Your task to perform on an android device: Open calendar and show me the third week of next month Image 0: 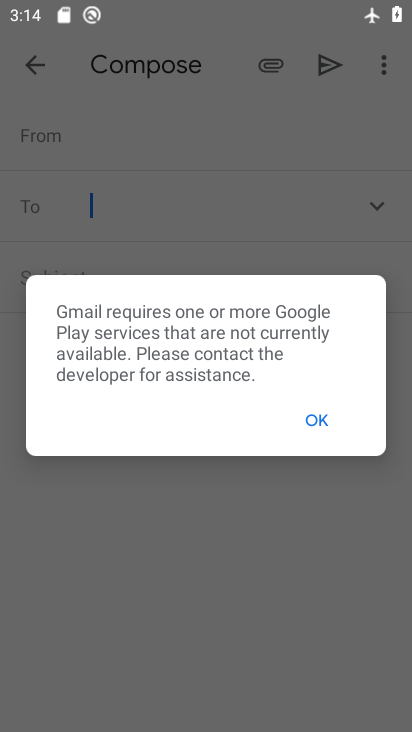
Step 0: click (232, 231)
Your task to perform on an android device: Open calendar and show me the third week of next month Image 1: 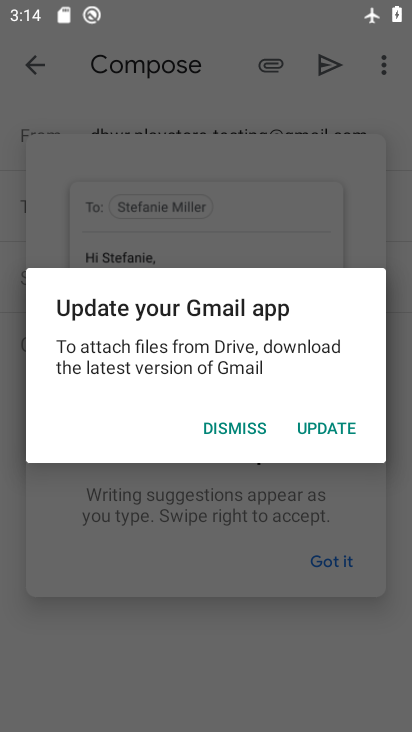
Step 1: click (241, 423)
Your task to perform on an android device: Open calendar and show me the third week of next month Image 2: 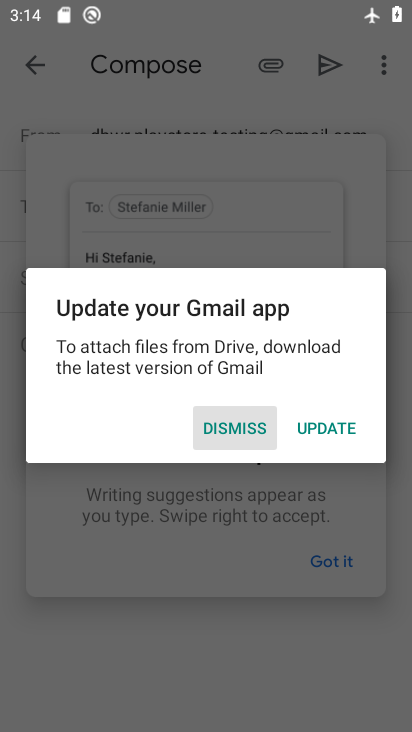
Step 2: click (241, 423)
Your task to perform on an android device: Open calendar and show me the third week of next month Image 3: 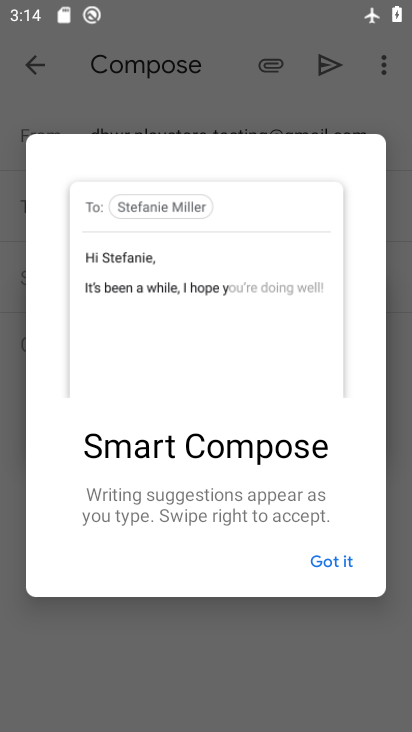
Step 3: click (340, 553)
Your task to perform on an android device: Open calendar and show me the third week of next month Image 4: 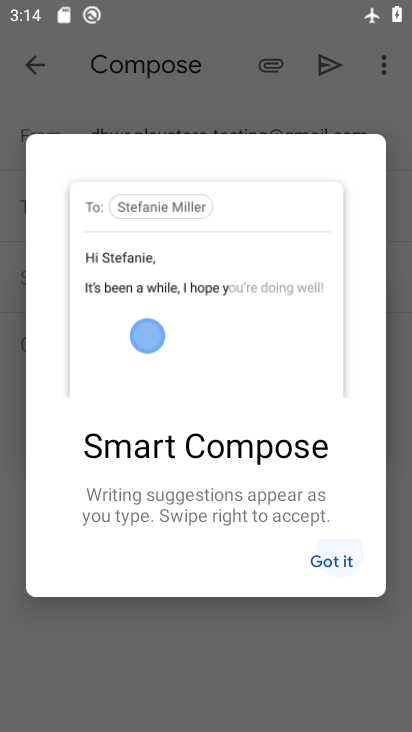
Step 4: click (340, 561)
Your task to perform on an android device: Open calendar and show me the third week of next month Image 5: 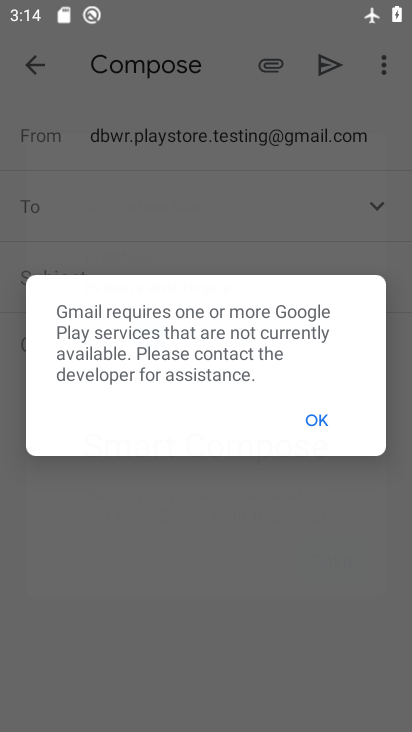
Step 5: click (340, 561)
Your task to perform on an android device: Open calendar and show me the third week of next month Image 6: 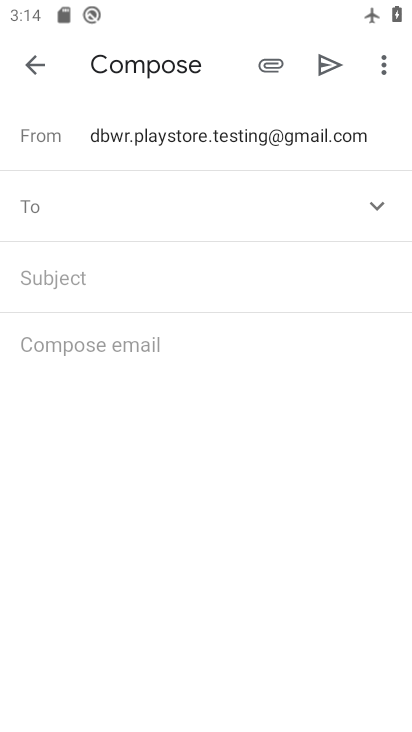
Step 6: click (334, 557)
Your task to perform on an android device: Open calendar and show me the third week of next month Image 7: 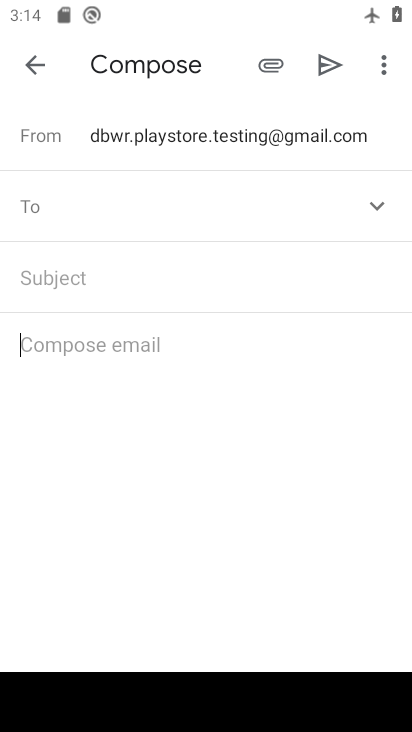
Step 7: click (30, 67)
Your task to perform on an android device: Open calendar and show me the third week of next month Image 8: 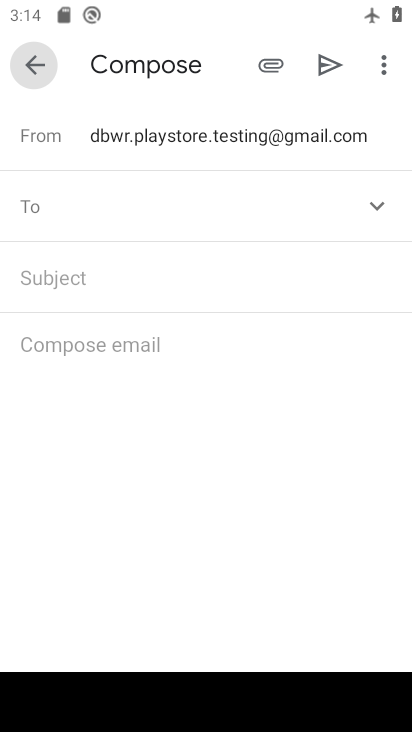
Step 8: click (33, 61)
Your task to perform on an android device: Open calendar and show me the third week of next month Image 9: 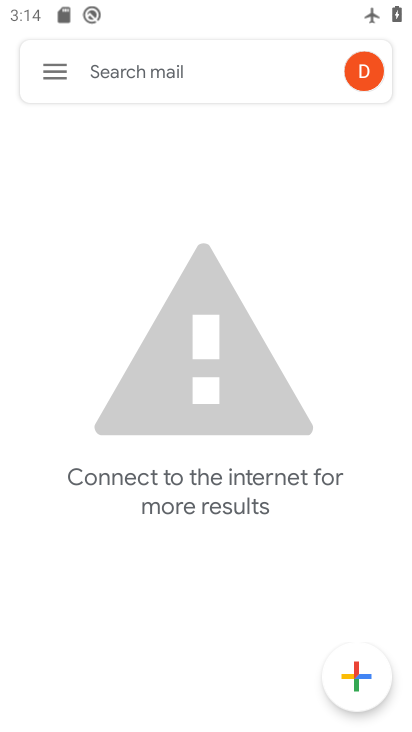
Step 9: press back button
Your task to perform on an android device: Open calendar and show me the third week of next month Image 10: 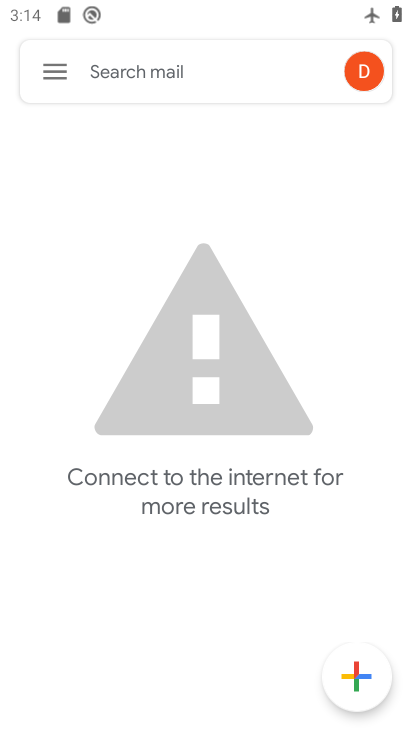
Step 10: press back button
Your task to perform on an android device: Open calendar and show me the third week of next month Image 11: 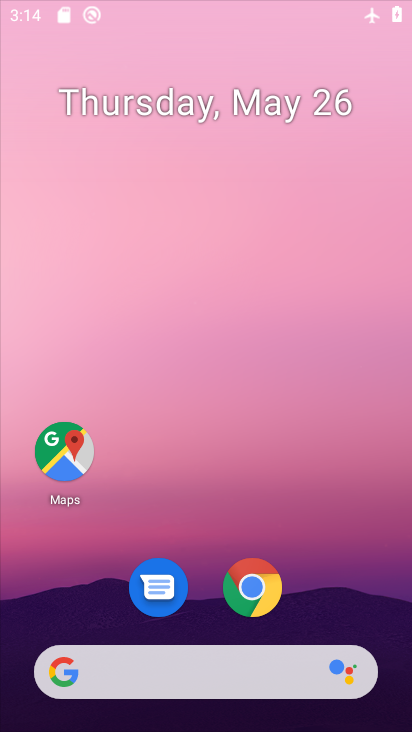
Step 11: press back button
Your task to perform on an android device: Open calendar and show me the third week of next month Image 12: 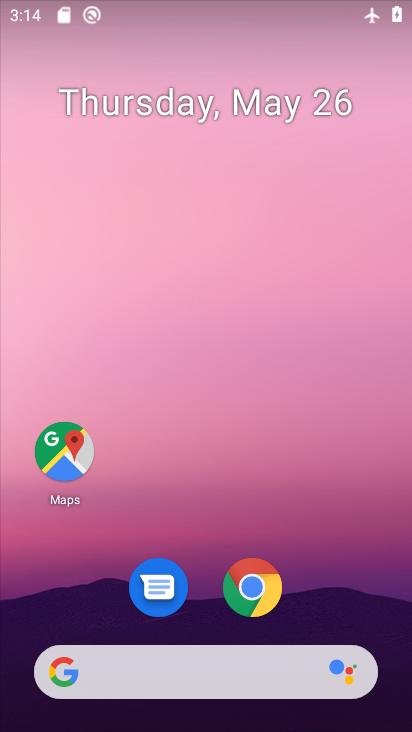
Step 12: drag from (334, 643) to (136, 27)
Your task to perform on an android device: Open calendar and show me the third week of next month Image 13: 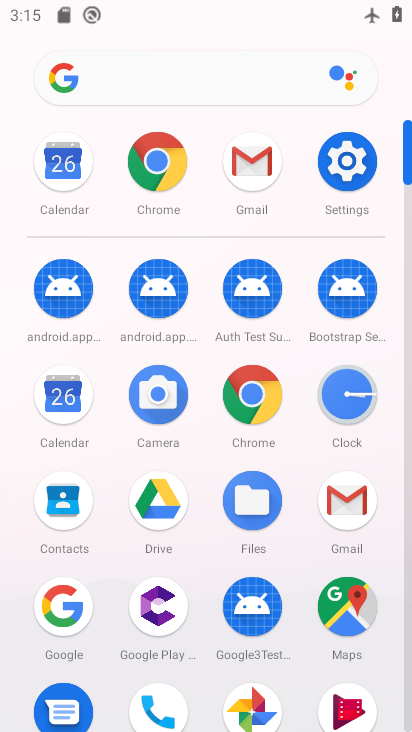
Step 13: click (66, 401)
Your task to perform on an android device: Open calendar and show me the third week of next month Image 14: 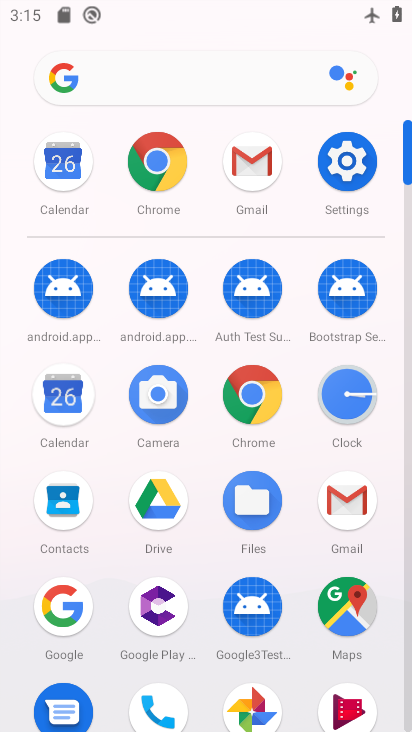
Step 14: click (66, 402)
Your task to perform on an android device: Open calendar and show me the third week of next month Image 15: 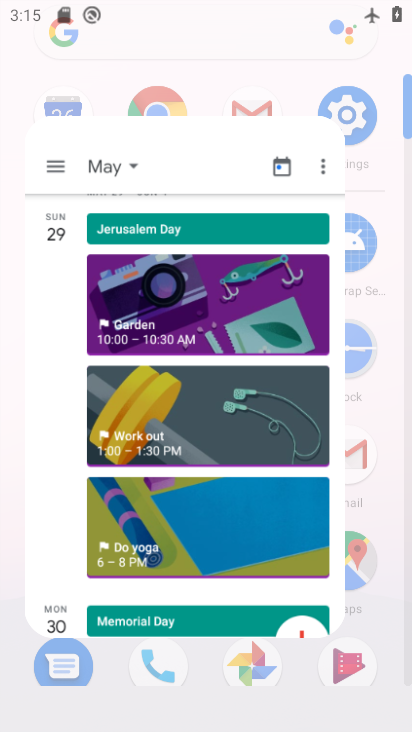
Step 15: click (66, 402)
Your task to perform on an android device: Open calendar and show me the third week of next month Image 16: 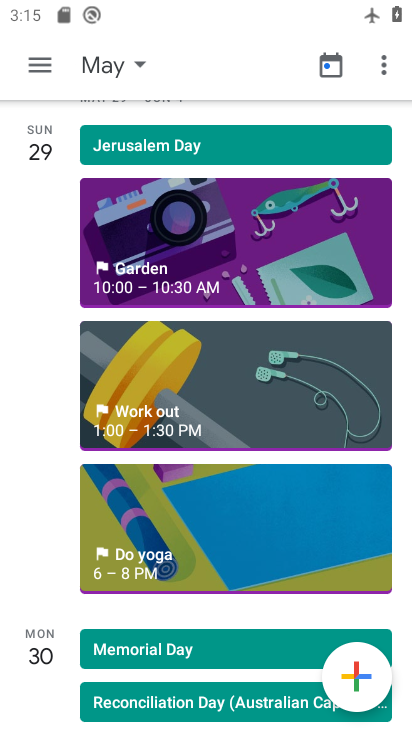
Step 16: click (66, 402)
Your task to perform on an android device: Open calendar and show me the third week of next month Image 17: 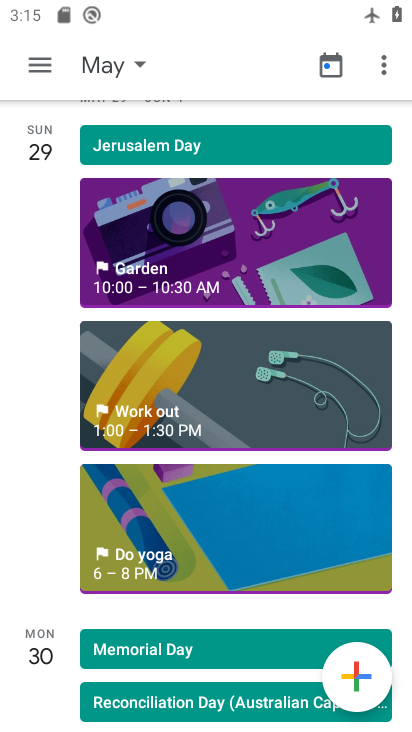
Step 17: click (136, 65)
Your task to perform on an android device: Open calendar and show me the third week of next month Image 18: 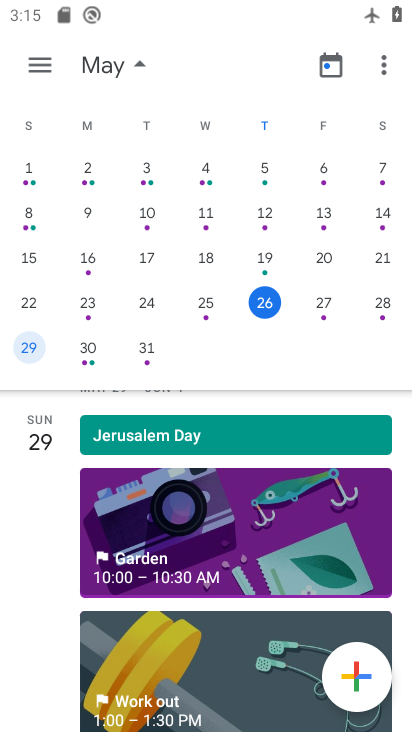
Step 18: drag from (343, 273) to (8, 315)
Your task to perform on an android device: Open calendar and show me the third week of next month Image 19: 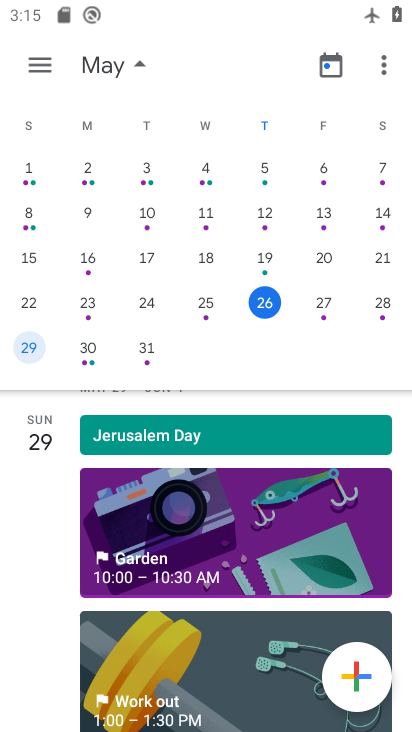
Step 19: drag from (317, 227) to (34, 199)
Your task to perform on an android device: Open calendar and show me the third week of next month Image 20: 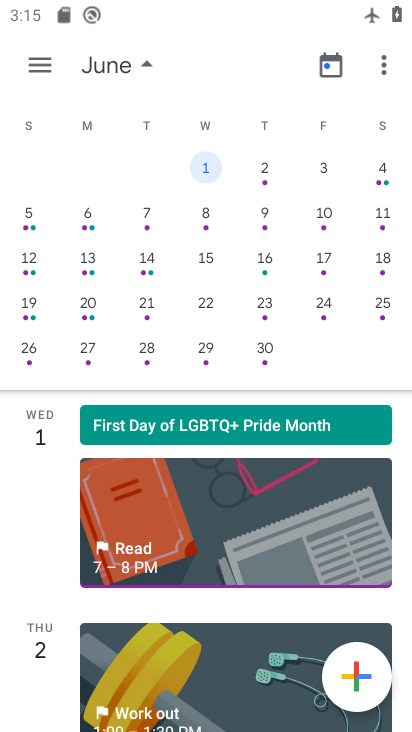
Step 20: click (206, 263)
Your task to perform on an android device: Open calendar and show me the third week of next month Image 21: 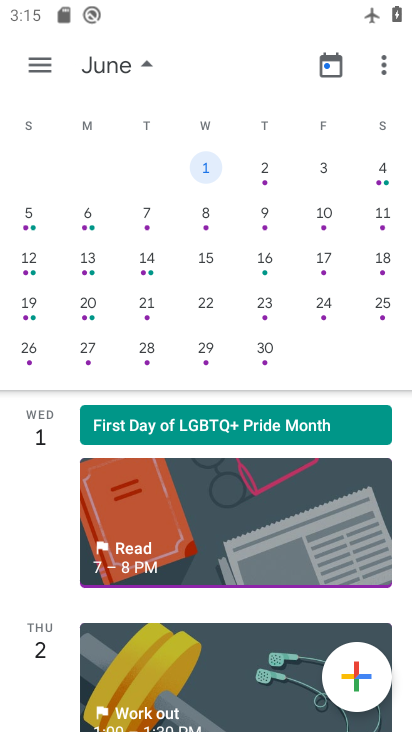
Step 21: click (206, 263)
Your task to perform on an android device: Open calendar and show me the third week of next month Image 22: 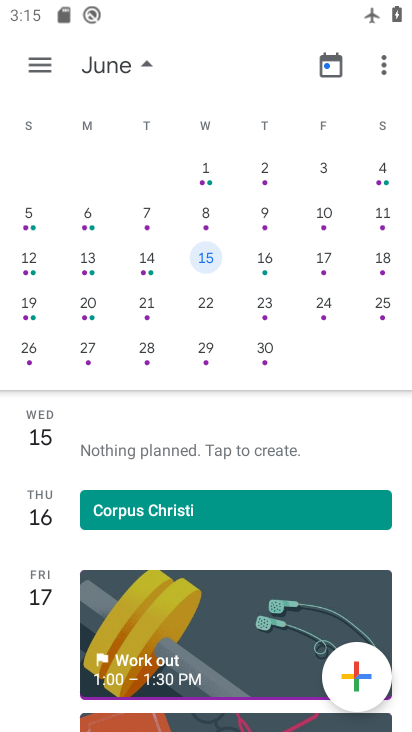
Step 22: click (215, 257)
Your task to perform on an android device: Open calendar and show me the third week of next month Image 23: 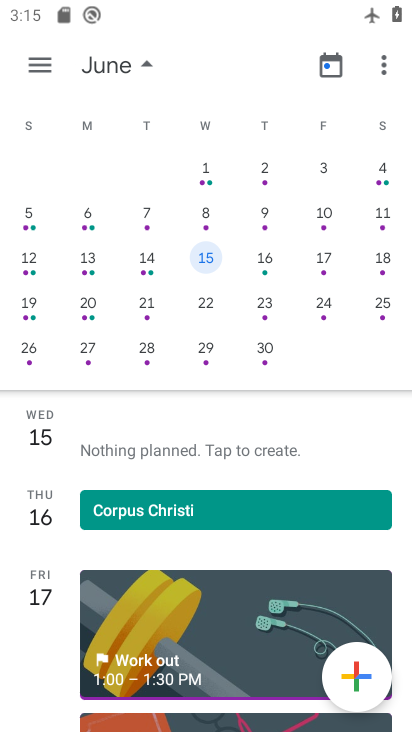
Step 23: click (216, 256)
Your task to perform on an android device: Open calendar and show me the third week of next month Image 24: 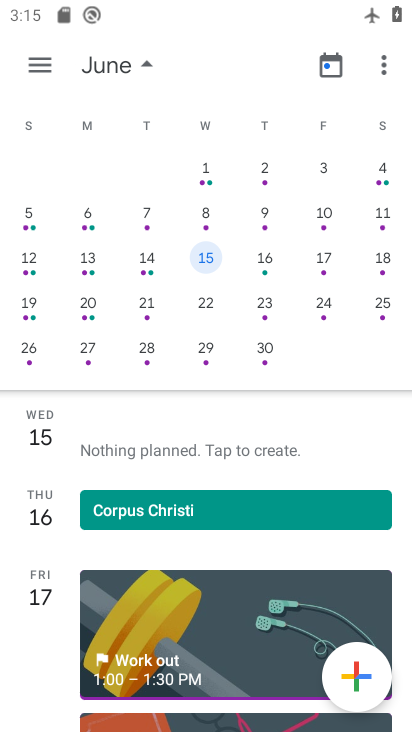
Step 24: task complete